Your task to perform on an android device: Go to ESPN.com Image 0: 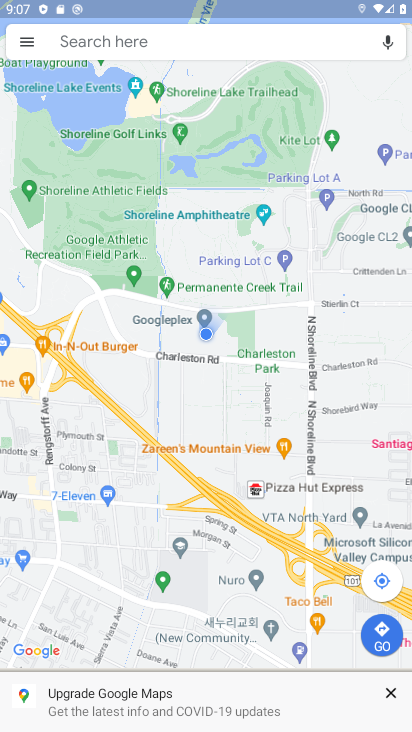
Step 0: press home button
Your task to perform on an android device: Go to ESPN.com Image 1: 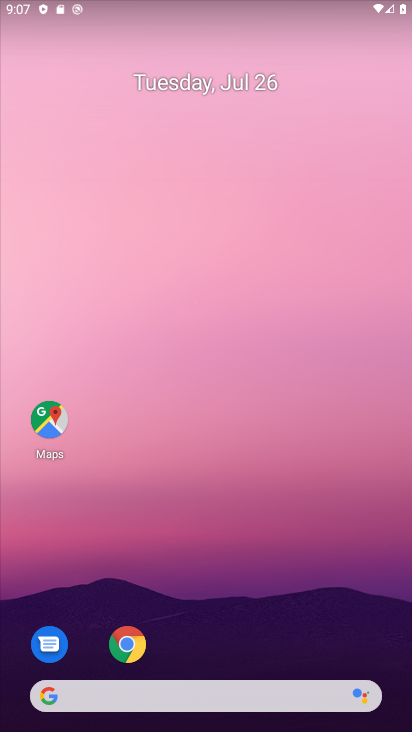
Step 1: click (130, 636)
Your task to perform on an android device: Go to ESPN.com Image 2: 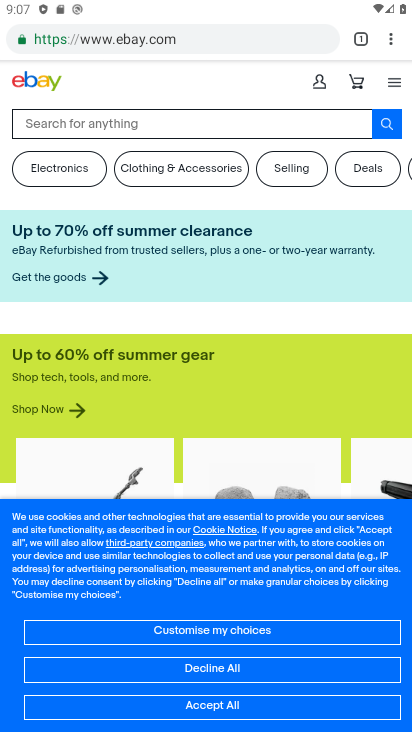
Step 2: click (175, 39)
Your task to perform on an android device: Go to ESPN.com Image 3: 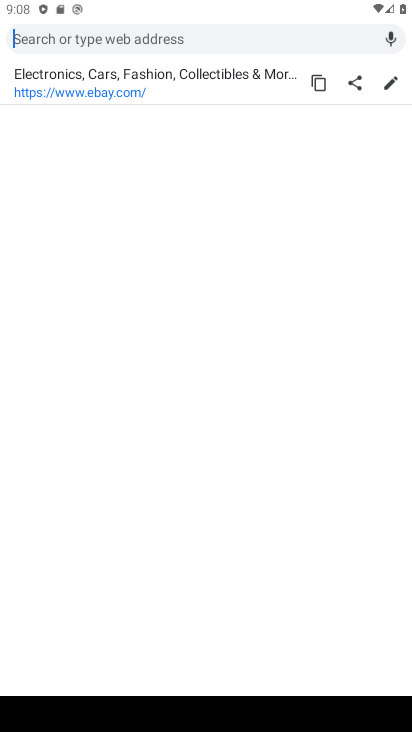
Step 3: type "ESPN.com"
Your task to perform on an android device: Go to ESPN.com Image 4: 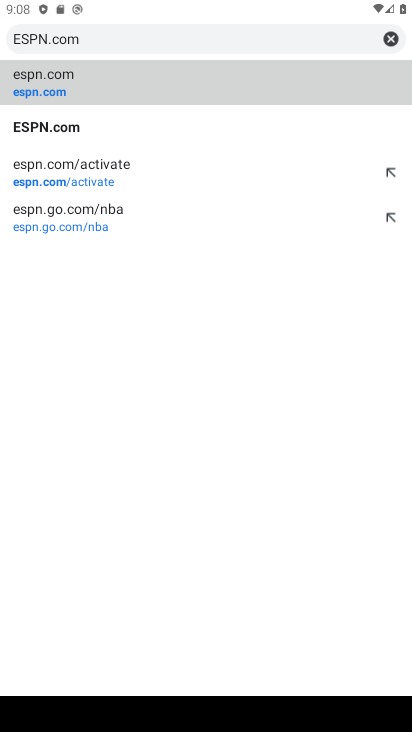
Step 4: click (76, 89)
Your task to perform on an android device: Go to ESPN.com Image 5: 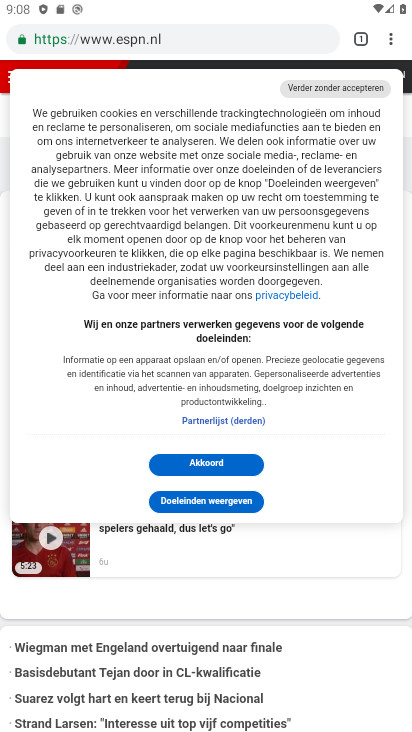
Step 5: task complete